Your task to perform on an android device: Go to sound settings Image 0: 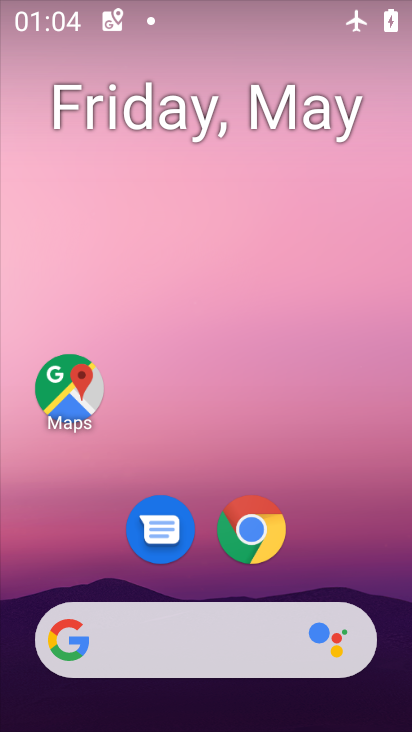
Step 0: drag from (355, 289) to (340, 158)
Your task to perform on an android device: Go to sound settings Image 1: 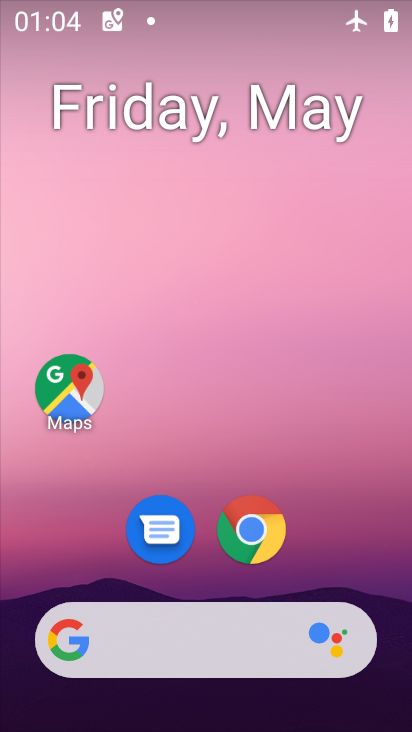
Step 1: drag from (295, 447) to (295, 244)
Your task to perform on an android device: Go to sound settings Image 2: 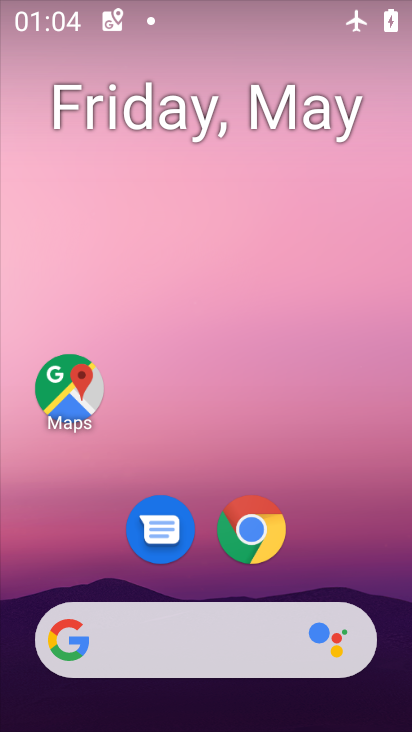
Step 2: drag from (320, 473) to (258, 197)
Your task to perform on an android device: Go to sound settings Image 3: 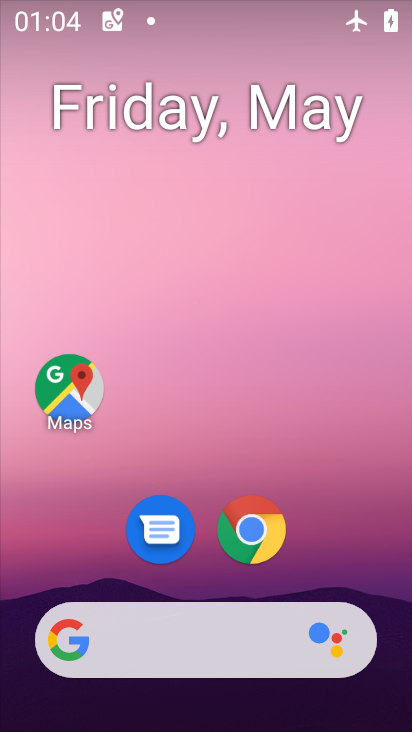
Step 3: drag from (334, 409) to (355, 182)
Your task to perform on an android device: Go to sound settings Image 4: 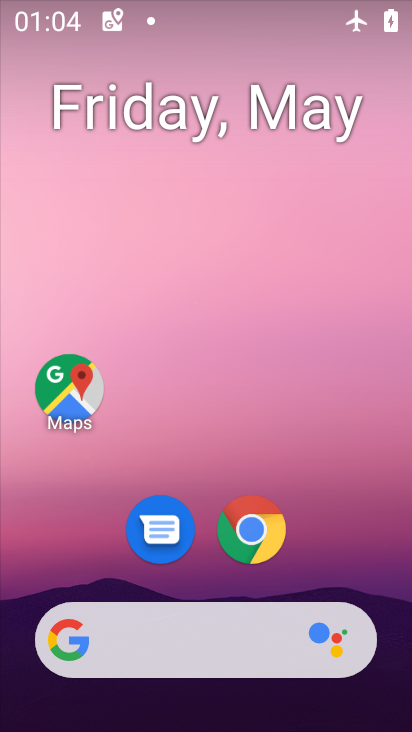
Step 4: drag from (330, 603) to (344, 87)
Your task to perform on an android device: Go to sound settings Image 5: 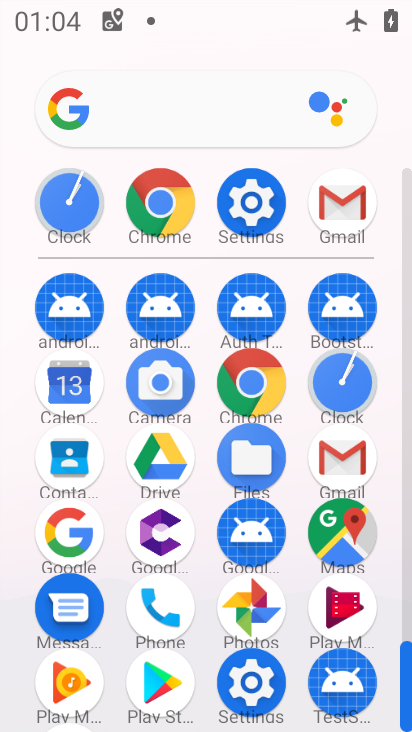
Step 5: click (234, 221)
Your task to perform on an android device: Go to sound settings Image 6: 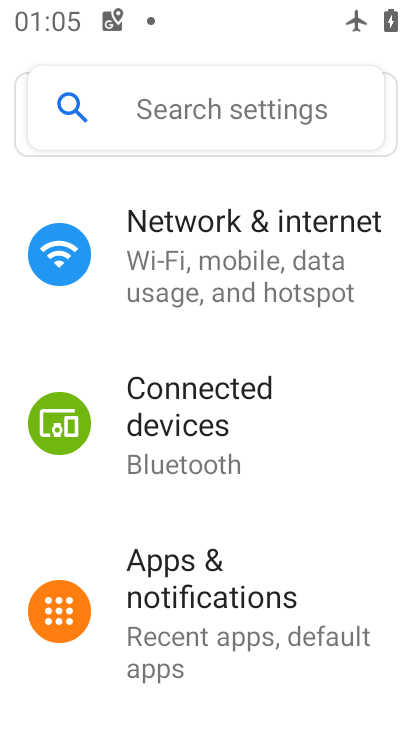
Step 6: drag from (248, 504) to (248, 167)
Your task to perform on an android device: Go to sound settings Image 7: 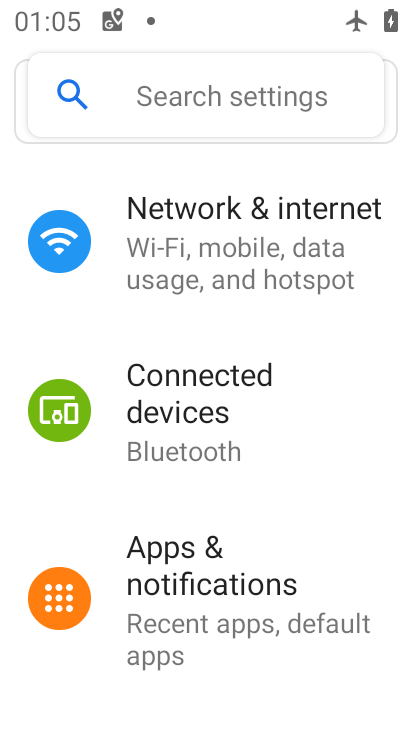
Step 7: drag from (247, 418) to (274, 231)
Your task to perform on an android device: Go to sound settings Image 8: 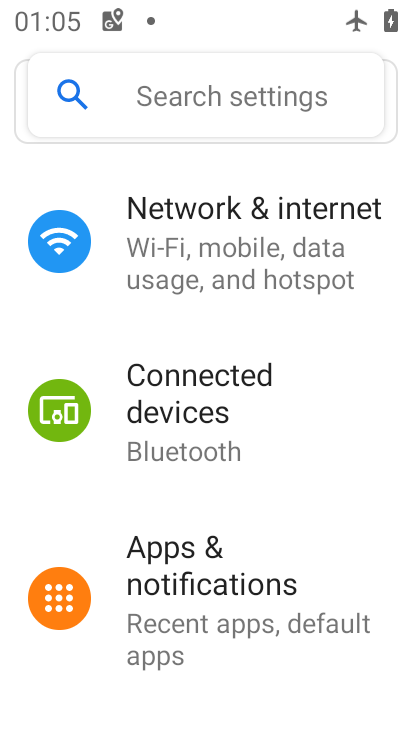
Step 8: drag from (211, 579) to (254, 278)
Your task to perform on an android device: Go to sound settings Image 9: 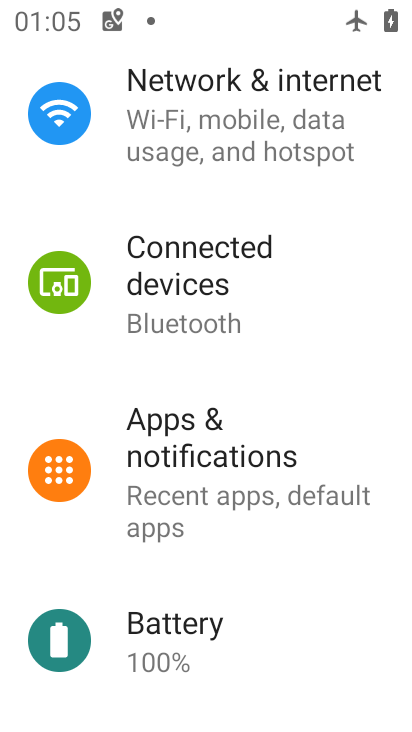
Step 9: drag from (233, 462) to (285, 236)
Your task to perform on an android device: Go to sound settings Image 10: 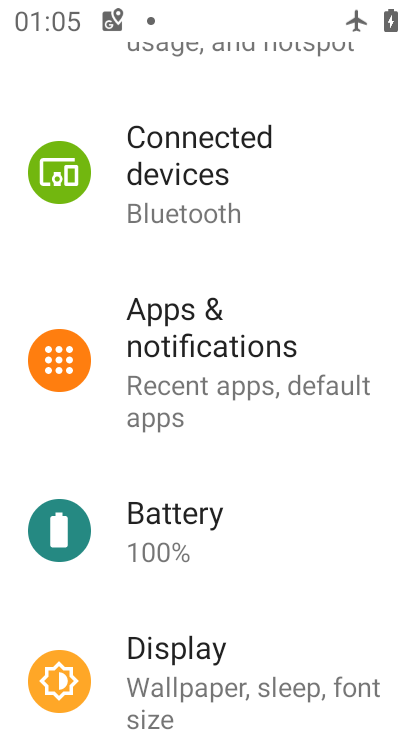
Step 10: drag from (236, 582) to (284, 258)
Your task to perform on an android device: Go to sound settings Image 11: 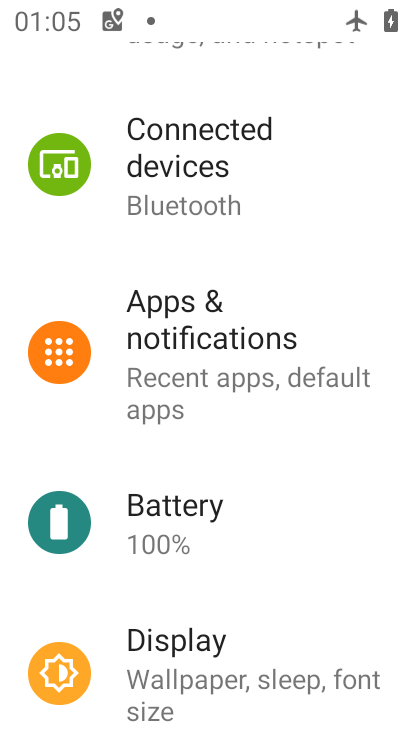
Step 11: drag from (187, 596) to (259, 265)
Your task to perform on an android device: Go to sound settings Image 12: 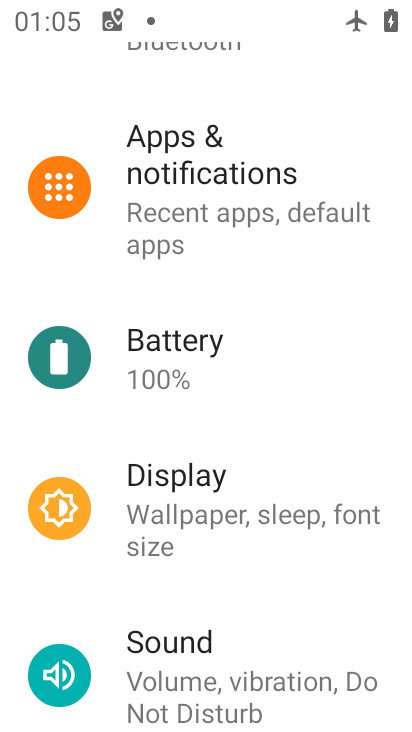
Step 12: drag from (232, 551) to (271, 220)
Your task to perform on an android device: Go to sound settings Image 13: 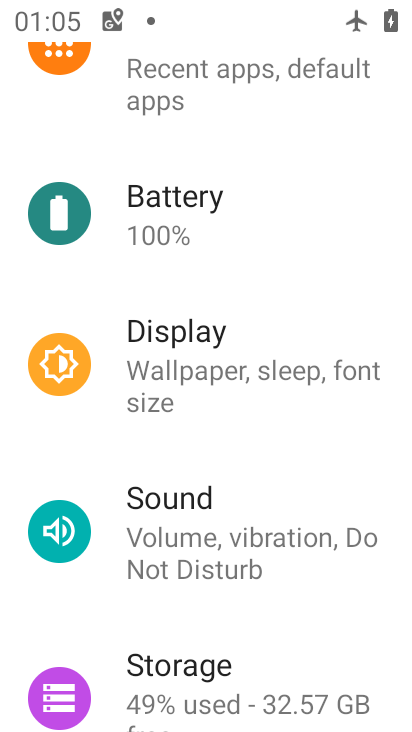
Step 13: drag from (187, 561) to (240, 336)
Your task to perform on an android device: Go to sound settings Image 14: 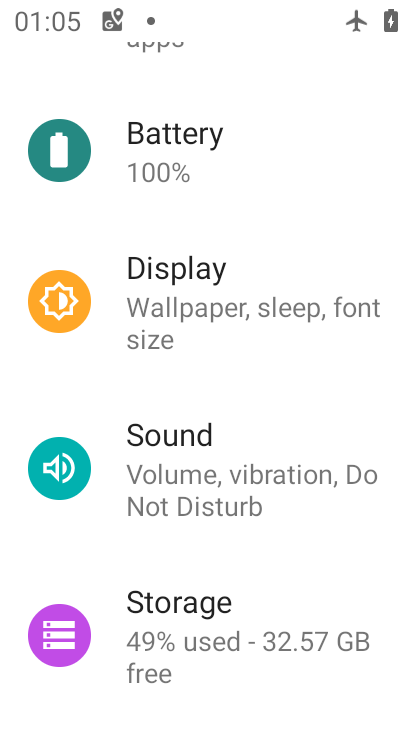
Step 14: click (203, 488)
Your task to perform on an android device: Go to sound settings Image 15: 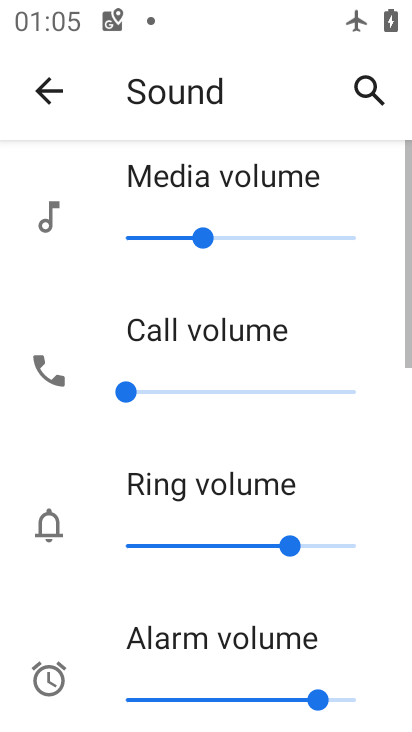
Step 15: task complete